Your task to perform on an android device: find which apps use the phone's location Image 0: 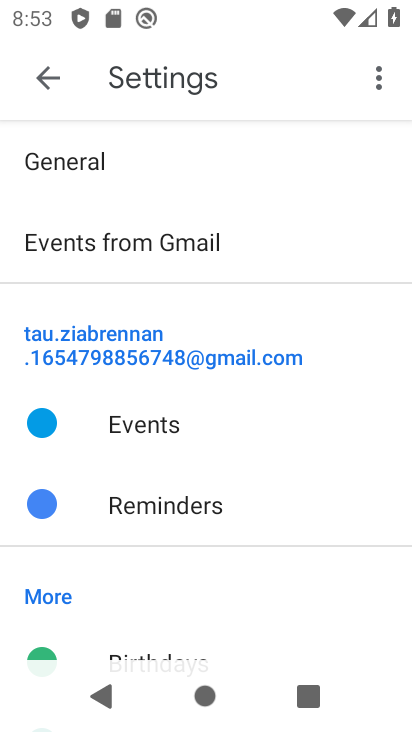
Step 0: press back button
Your task to perform on an android device: find which apps use the phone's location Image 1: 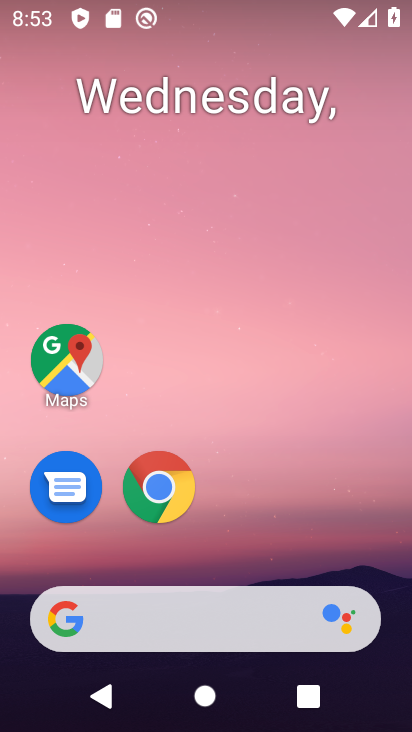
Step 1: drag from (244, 549) to (308, 9)
Your task to perform on an android device: find which apps use the phone's location Image 2: 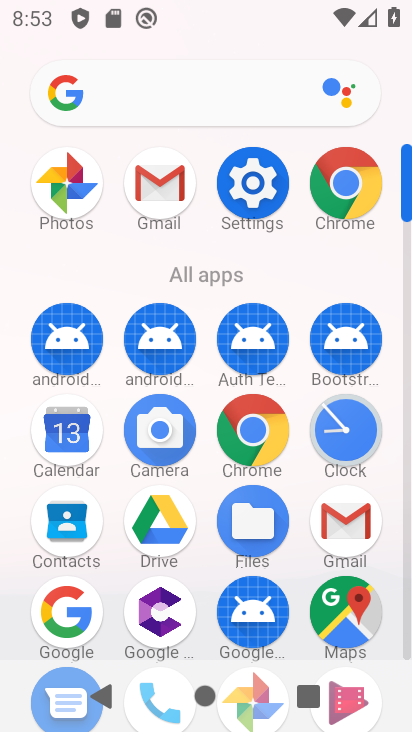
Step 2: click (253, 174)
Your task to perform on an android device: find which apps use the phone's location Image 3: 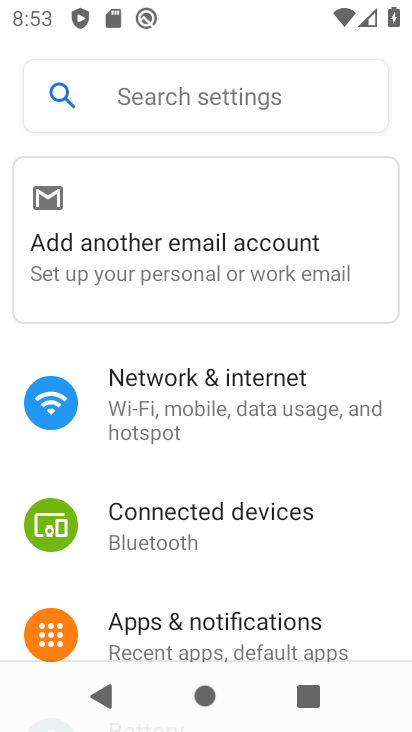
Step 3: drag from (214, 619) to (272, 124)
Your task to perform on an android device: find which apps use the phone's location Image 4: 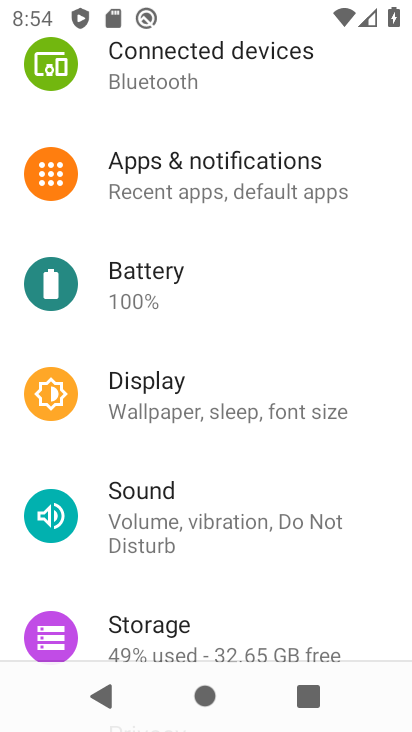
Step 4: drag from (204, 600) to (262, 74)
Your task to perform on an android device: find which apps use the phone's location Image 5: 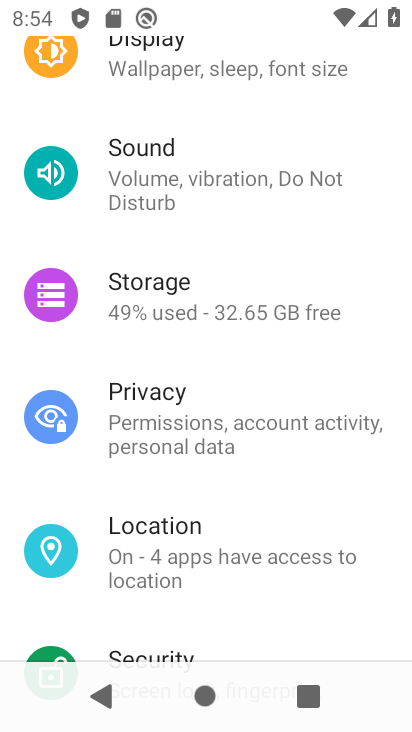
Step 5: click (155, 558)
Your task to perform on an android device: find which apps use the phone's location Image 6: 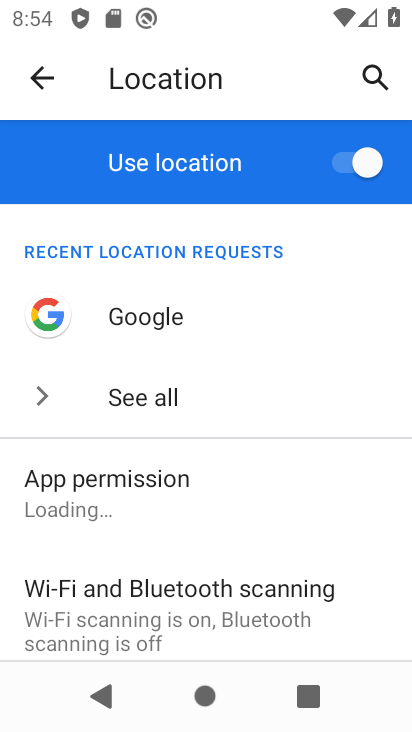
Step 6: click (98, 472)
Your task to perform on an android device: find which apps use the phone's location Image 7: 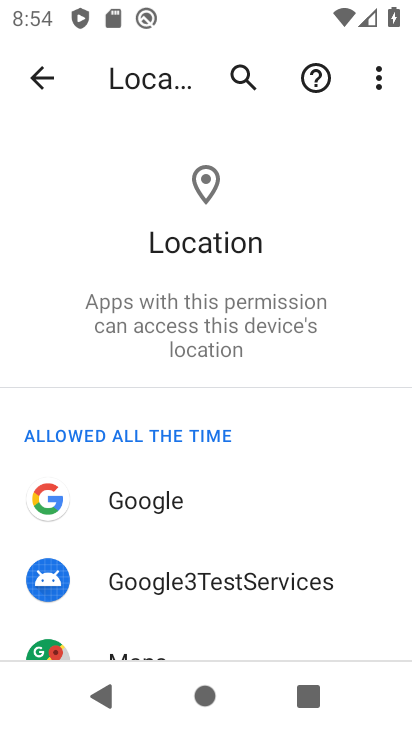
Step 7: task complete